Your task to perform on an android device: toggle pop-ups in chrome Image 0: 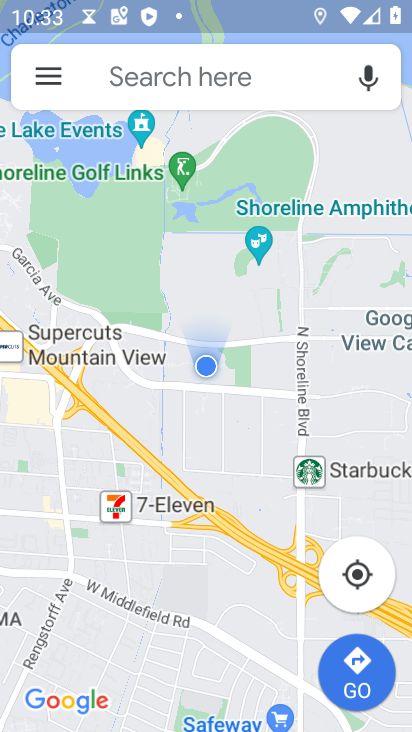
Step 0: press home button
Your task to perform on an android device: toggle pop-ups in chrome Image 1: 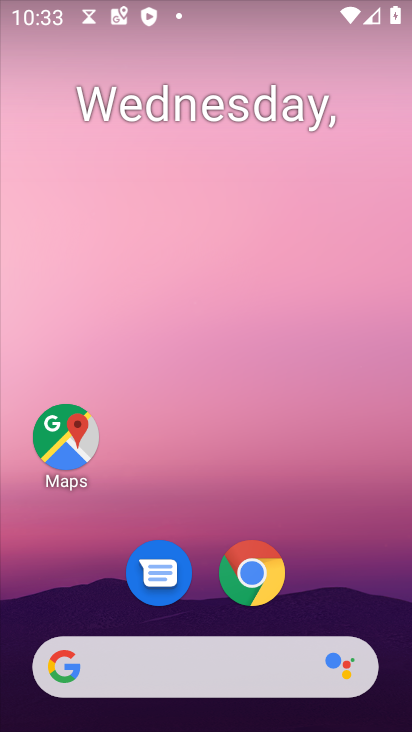
Step 1: click (237, 570)
Your task to perform on an android device: toggle pop-ups in chrome Image 2: 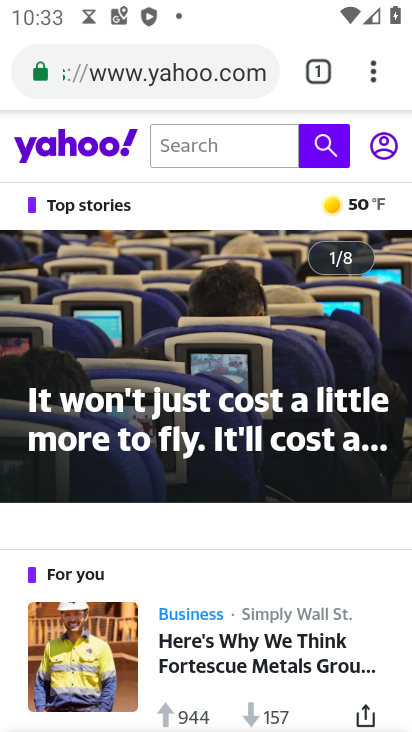
Step 2: click (373, 77)
Your task to perform on an android device: toggle pop-ups in chrome Image 3: 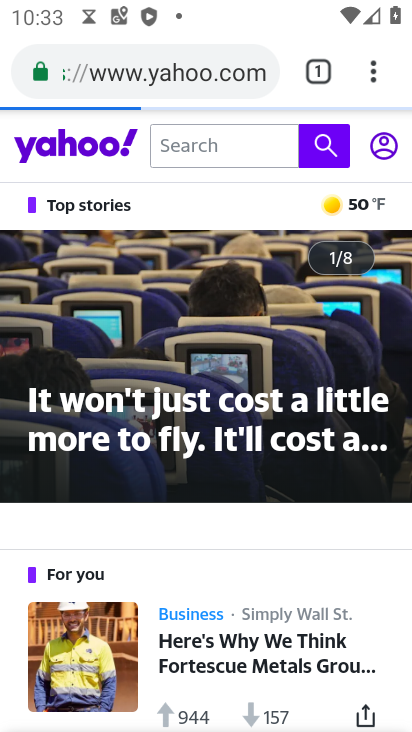
Step 3: click (373, 77)
Your task to perform on an android device: toggle pop-ups in chrome Image 4: 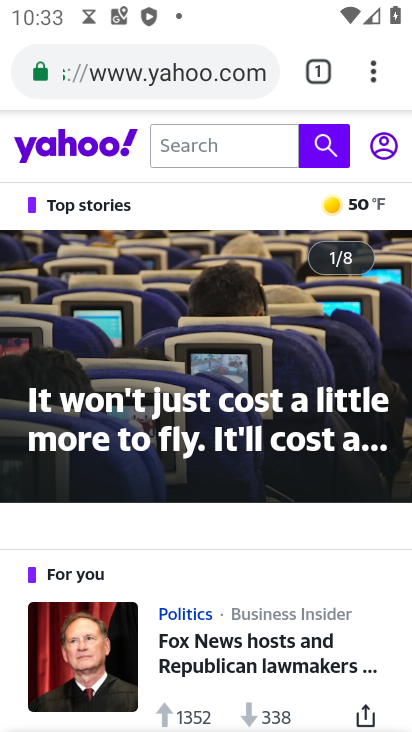
Step 4: click (369, 66)
Your task to perform on an android device: toggle pop-ups in chrome Image 5: 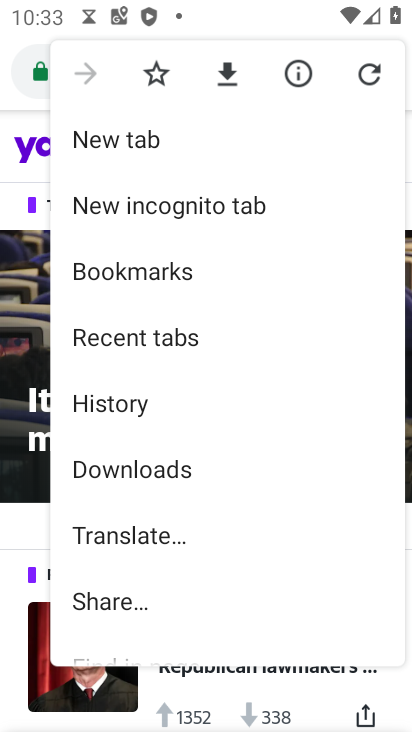
Step 5: drag from (155, 586) to (222, 149)
Your task to perform on an android device: toggle pop-ups in chrome Image 6: 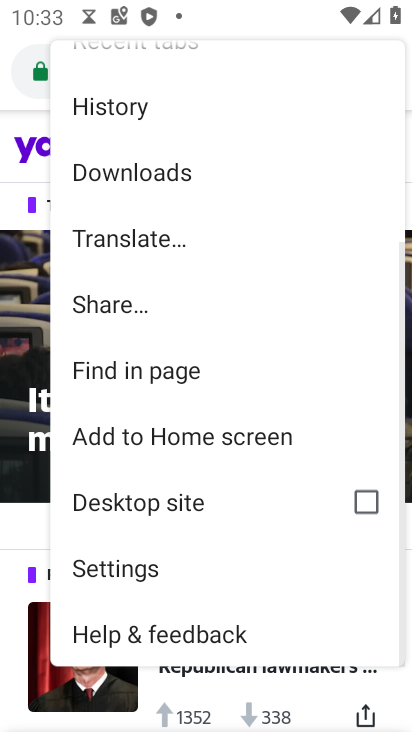
Step 6: click (144, 570)
Your task to perform on an android device: toggle pop-ups in chrome Image 7: 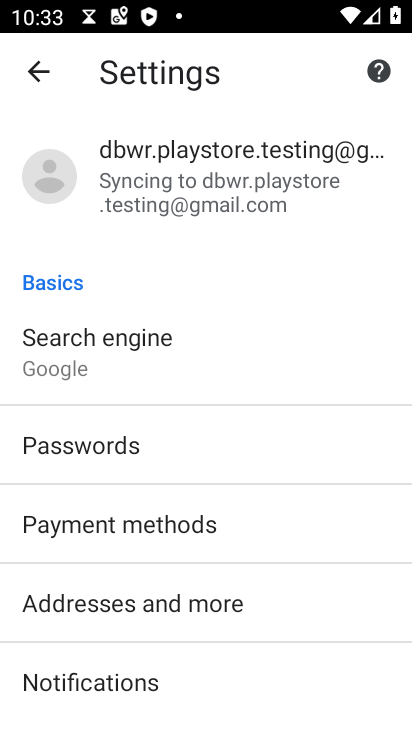
Step 7: drag from (133, 664) to (158, 329)
Your task to perform on an android device: toggle pop-ups in chrome Image 8: 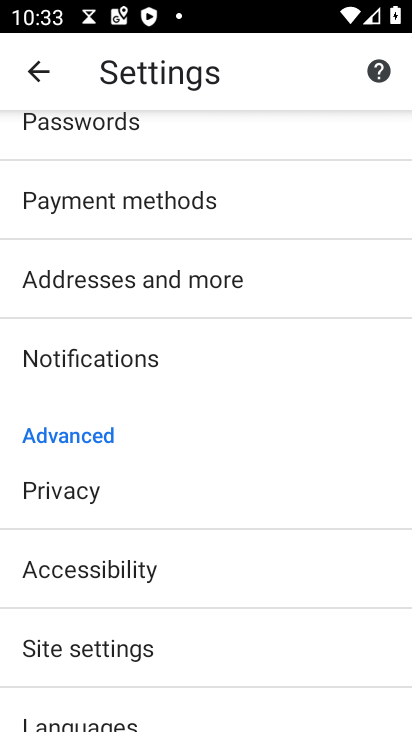
Step 8: click (106, 647)
Your task to perform on an android device: toggle pop-ups in chrome Image 9: 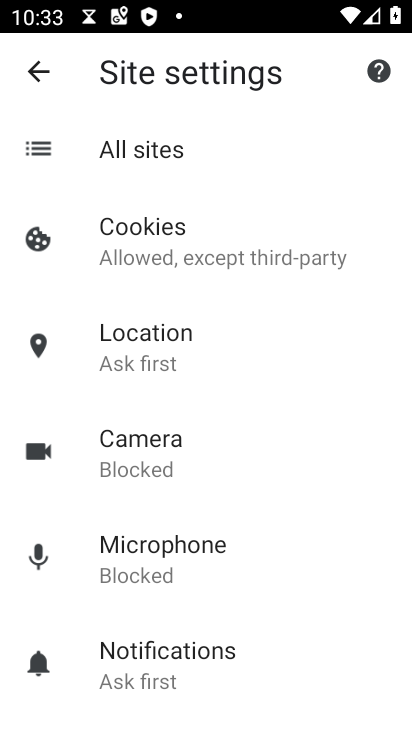
Step 9: drag from (191, 663) to (244, 331)
Your task to perform on an android device: toggle pop-ups in chrome Image 10: 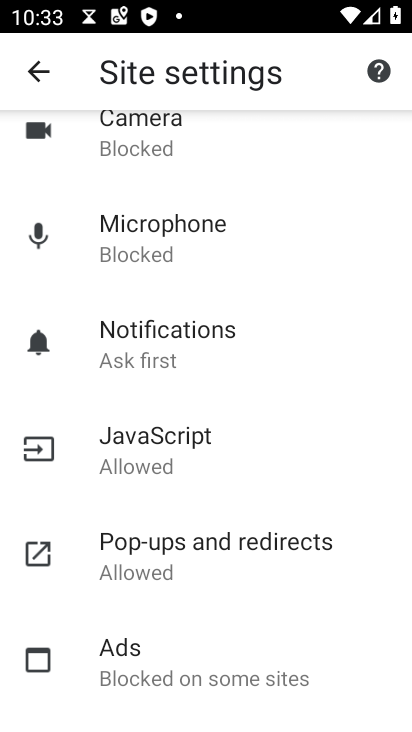
Step 10: click (199, 557)
Your task to perform on an android device: toggle pop-ups in chrome Image 11: 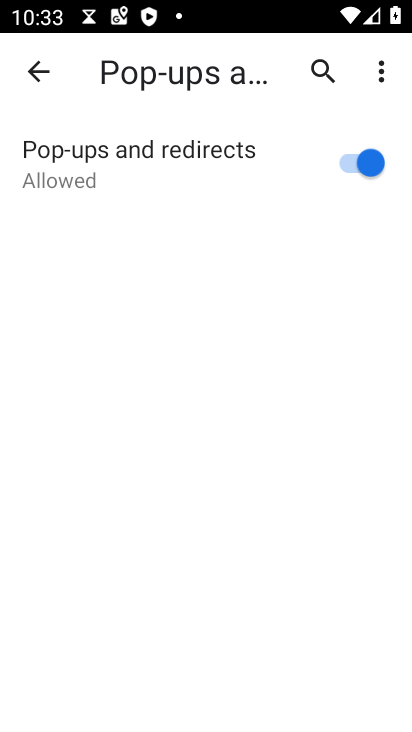
Step 11: click (349, 164)
Your task to perform on an android device: toggle pop-ups in chrome Image 12: 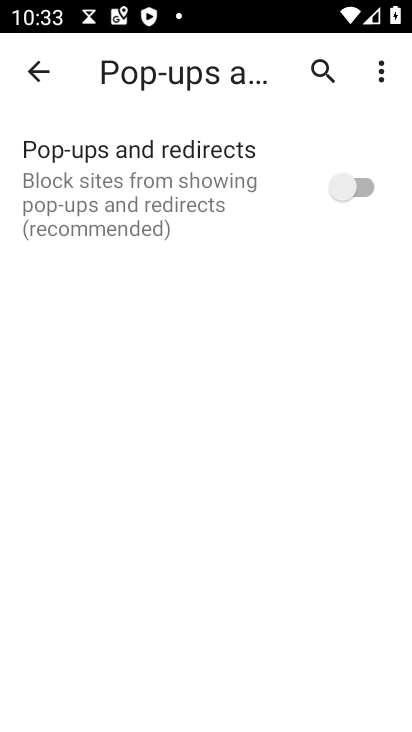
Step 12: task complete